Your task to perform on an android device: check android version Image 0: 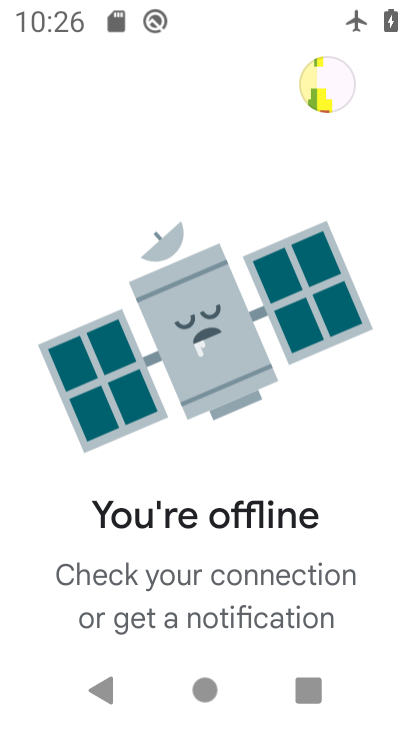
Step 0: press home button
Your task to perform on an android device: check android version Image 1: 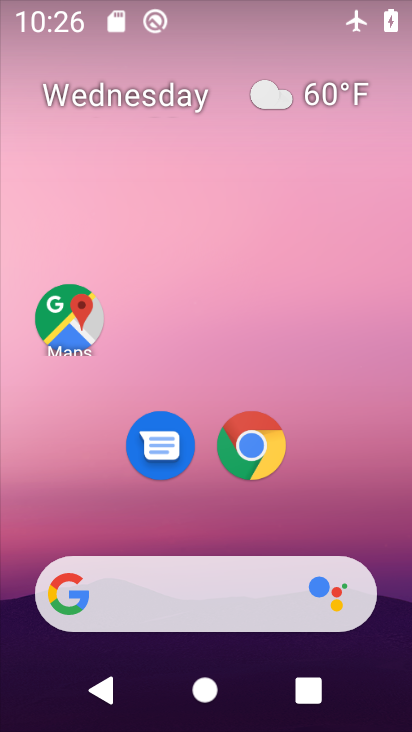
Step 1: drag from (218, 478) to (197, 129)
Your task to perform on an android device: check android version Image 2: 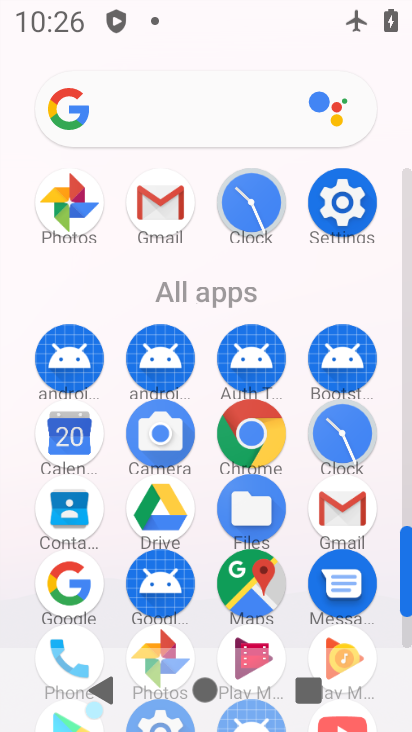
Step 2: click (342, 198)
Your task to perform on an android device: check android version Image 3: 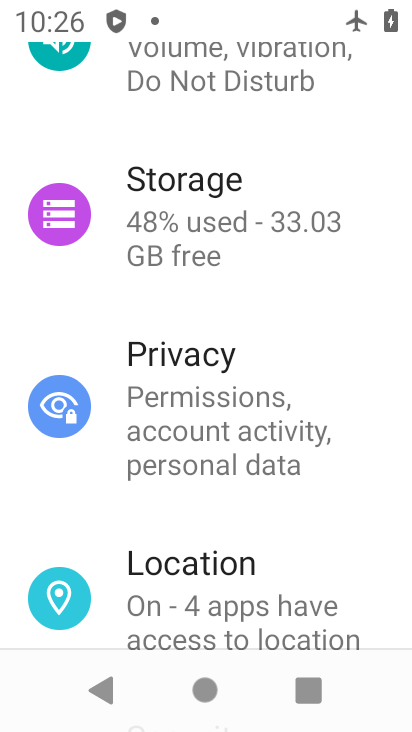
Step 3: drag from (235, 530) to (246, 206)
Your task to perform on an android device: check android version Image 4: 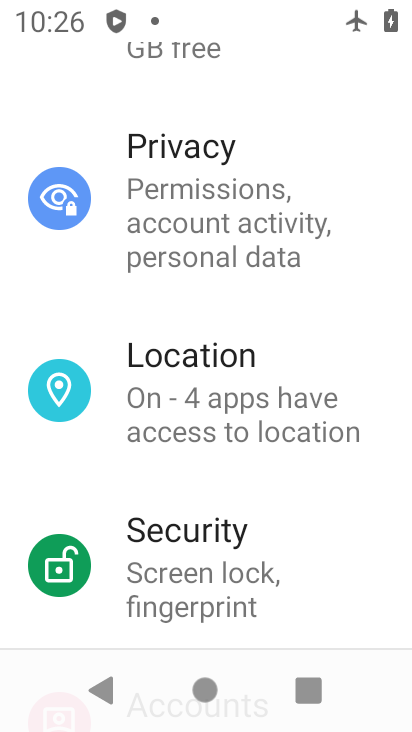
Step 4: drag from (246, 539) to (260, 158)
Your task to perform on an android device: check android version Image 5: 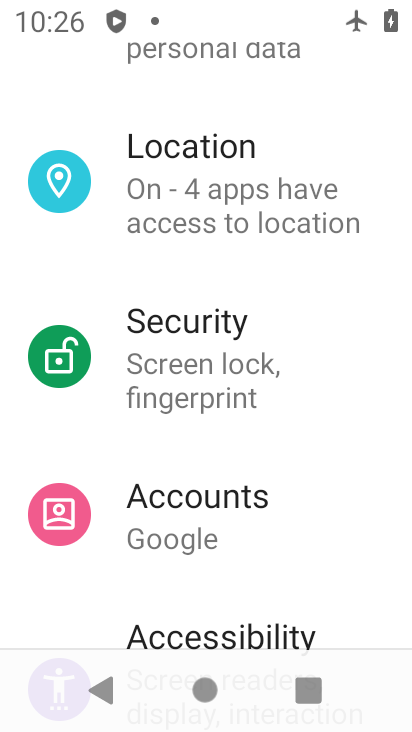
Step 5: drag from (254, 518) to (264, 184)
Your task to perform on an android device: check android version Image 6: 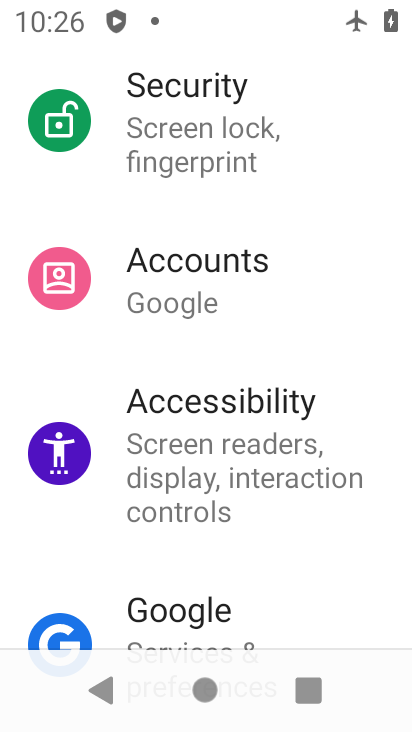
Step 6: drag from (256, 508) to (256, 207)
Your task to perform on an android device: check android version Image 7: 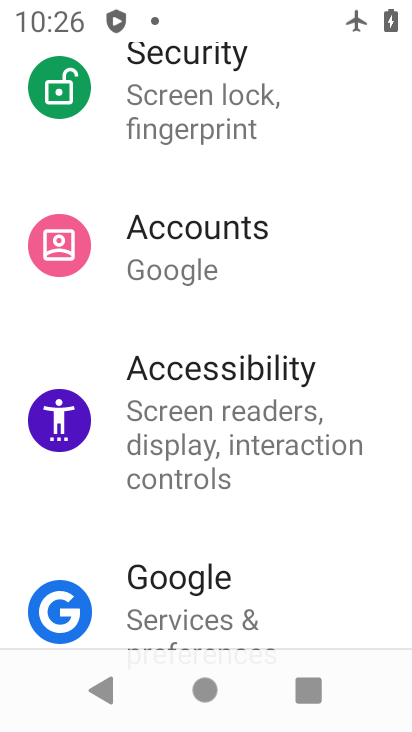
Step 7: drag from (270, 512) to (281, 171)
Your task to perform on an android device: check android version Image 8: 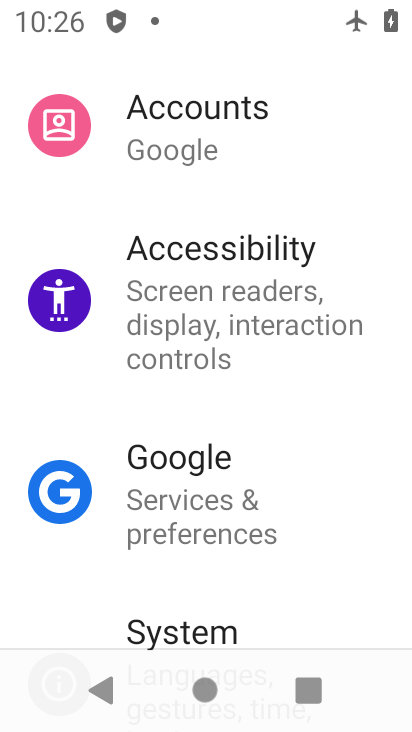
Step 8: drag from (287, 559) to (298, 240)
Your task to perform on an android device: check android version Image 9: 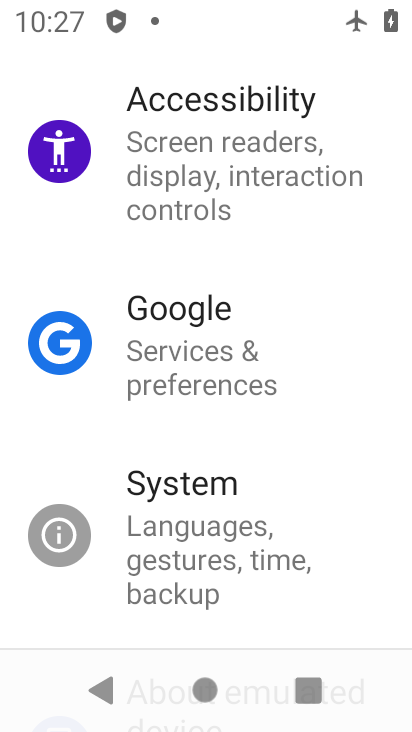
Step 9: drag from (295, 532) to (305, 235)
Your task to perform on an android device: check android version Image 10: 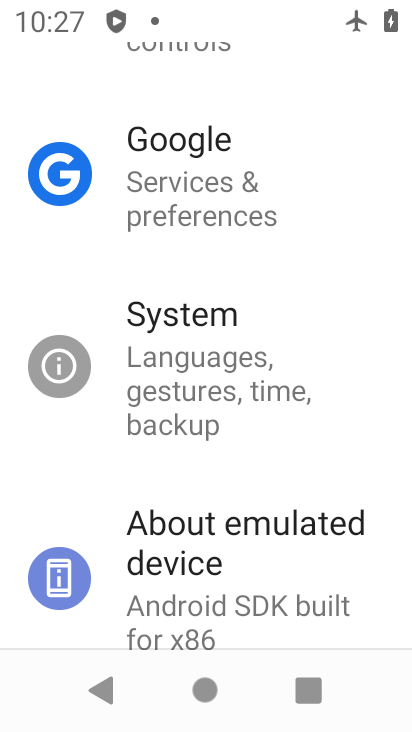
Step 10: drag from (274, 527) to (278, 344)
Your task to perform on an android device: check android version Image 11: 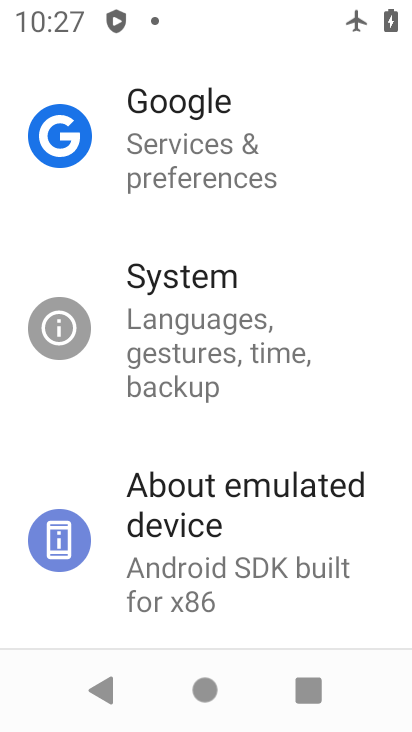
Step 11: click (268, 516)
Your task to perform on an android device: check android version Image 12: 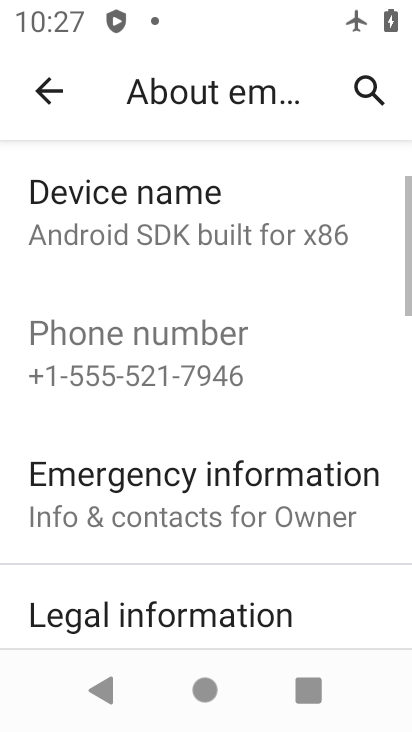
Step 12: drag from (252, 498) to (258, 217)
Your task to perform on an android device: check android version Image 13: 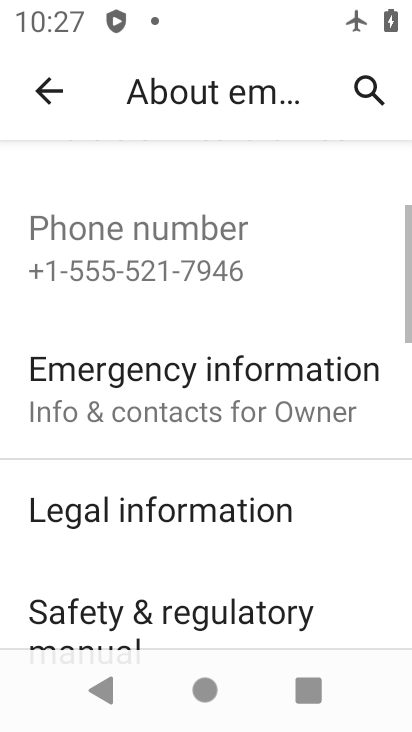
Step 13: drag from (246, 476) to (257, 205)
Your task to perform on an android device: check android version Image 14: 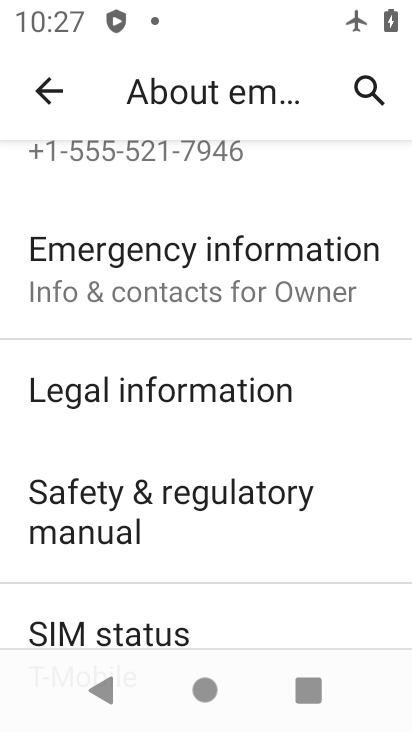
Step 14: drag from (256, 506) to (270, 167)
Your task to perform on an android device: check android version Image 15: 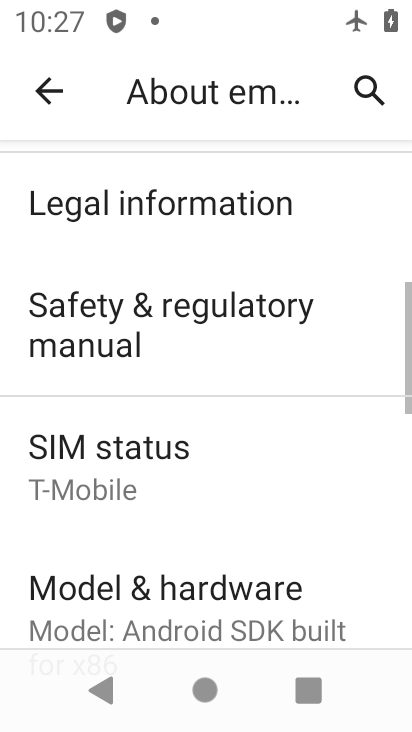
Step 15: drag from (272, 478) to (277, 239)
Your task to perform on an android device: check android version Image 16: 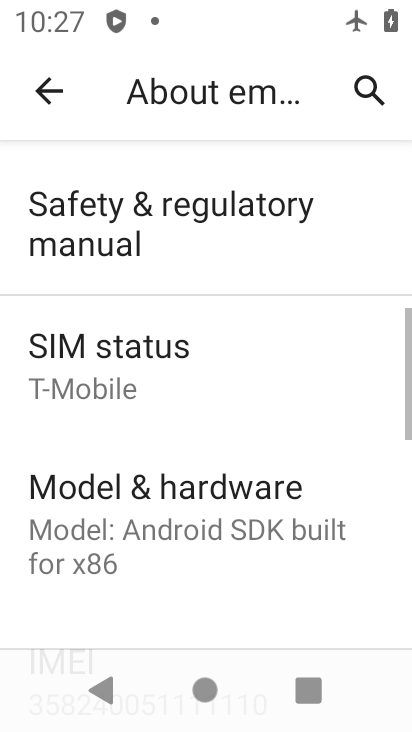
Step 16: drag from (201, 512) to (260, 199)
Your task to perform on an android device: check android version Image 17: 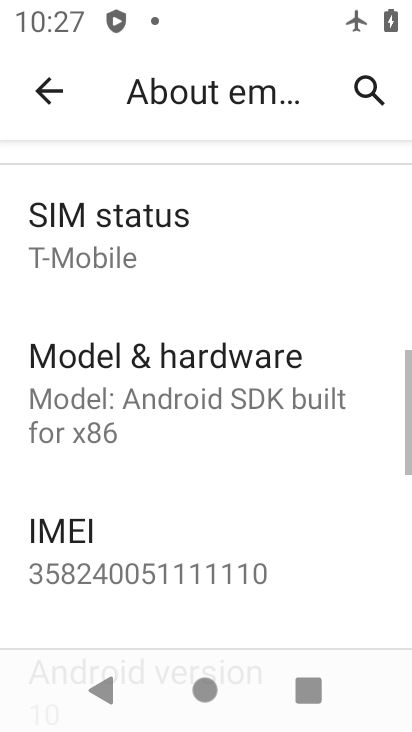
Step 17: drag from (195, 513) to (245, 270)
Your task to perform on an android device: check android version Image 18: 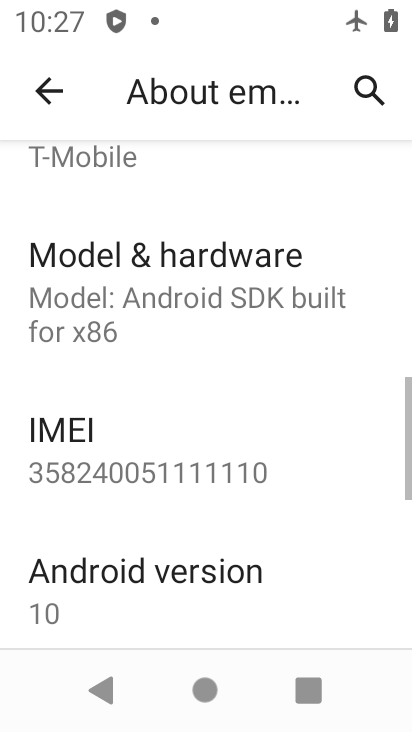
Step 18: click (183, 591)
Your task to perform on an android device: check android version Image 19: 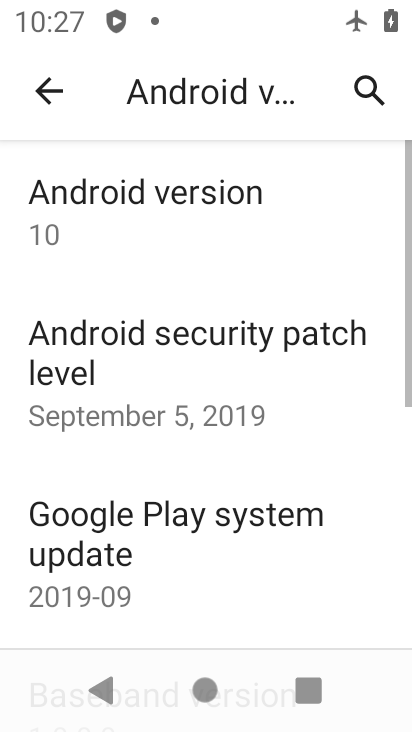
Step 19: click (139, 212)
Your task to perform on an android device: check android version Image 20: 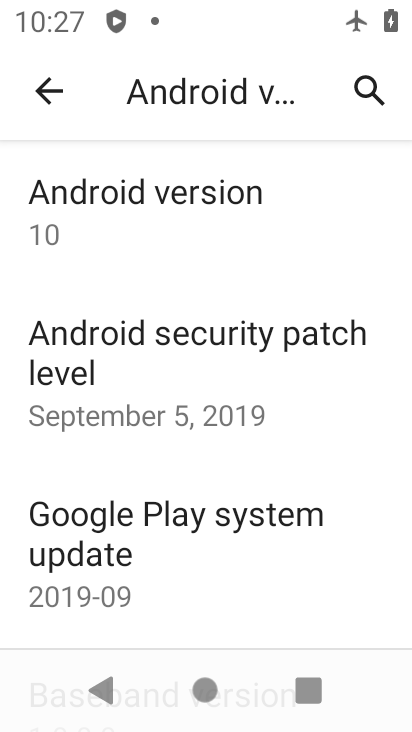
Step 20: task complete